Your task to perform on an android device: What's the news in theFalkland Islands? Image 0: 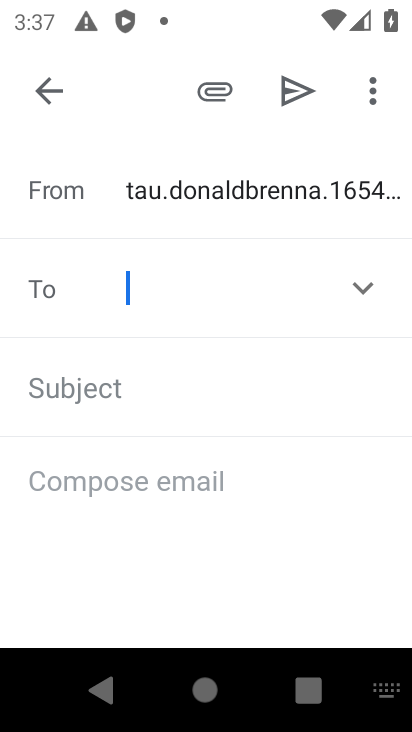
Step 0: press home button
Your task to perform on an android device: What's the news in theFalkland Islands? Image 1: 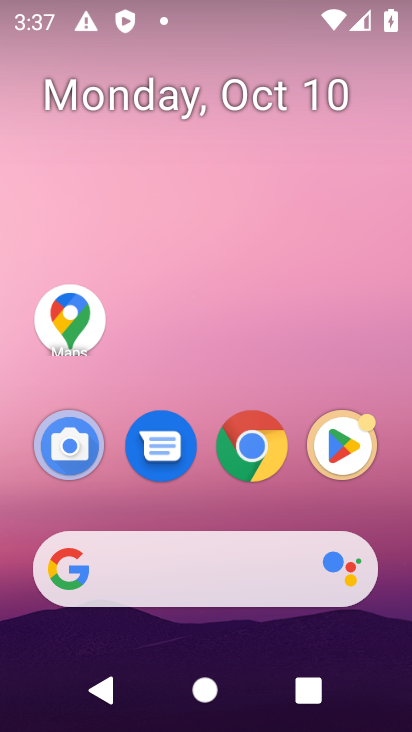
Step 1: click (191, 579)
Your task to perform on an android device: What's the news in theFalkland Islands? Image 2: 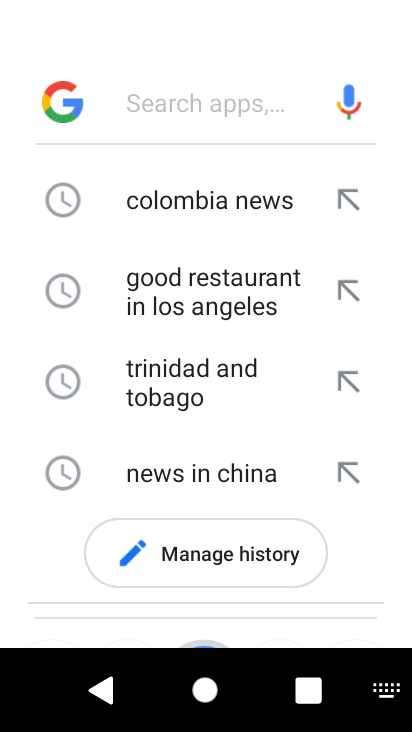
Step 2: type "Falkland Islands"
Your task to perform on an android device: What's the news in theFalkland Islands? Image 3: 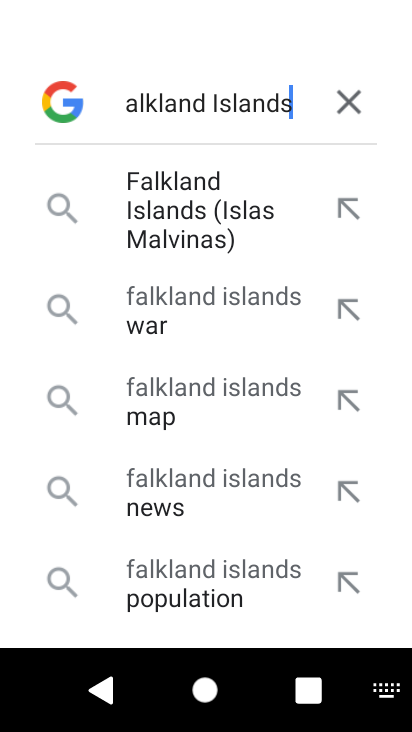
Step 3: type ""
Your task to perform on an android device: What's the news in theFalkland Islands? Image 4: 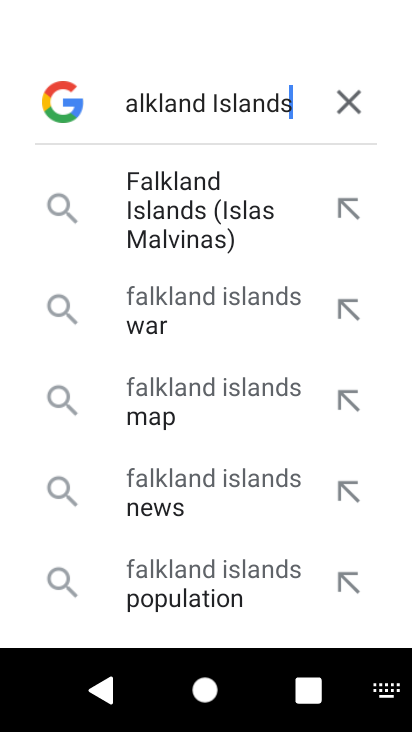
Step 4: click (237, 503)
Your task to perform on an android device: What's the news in theFalkland Islands? Image 5: 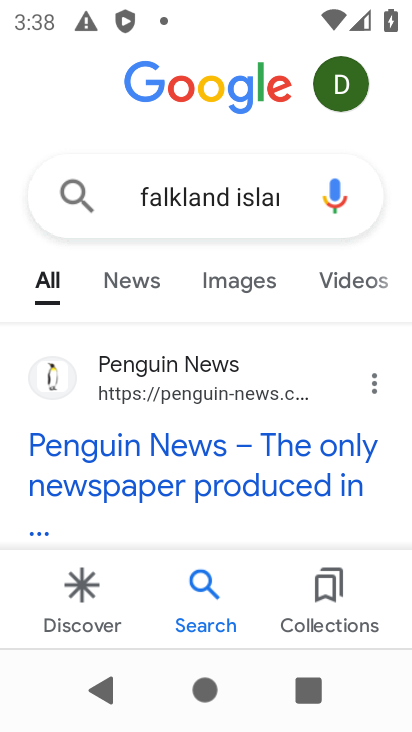
Step 5: click (134, 282)
Your task to perform on an android device: What's the news in theFalkland Islands? Image 6: 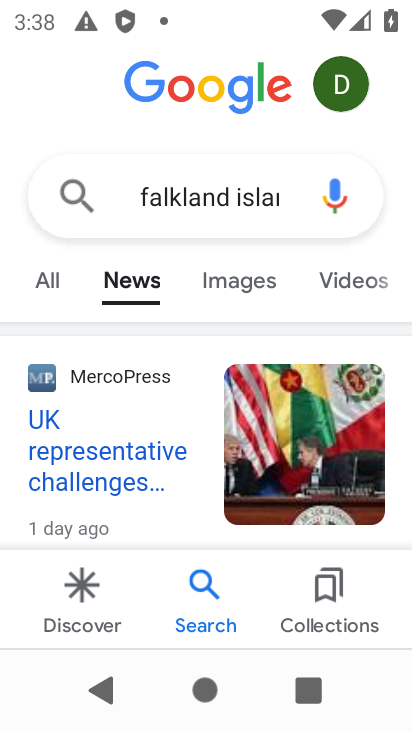
Step 6: task complete